Your task to perform on an android device: check storage Image 0: 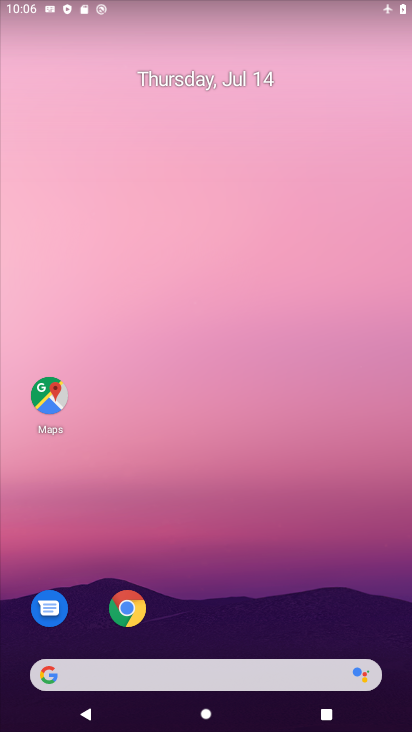
Step 0: drag from (192, 619) to (288, 27)
Your task to perform on an android device: check storage Image 1: 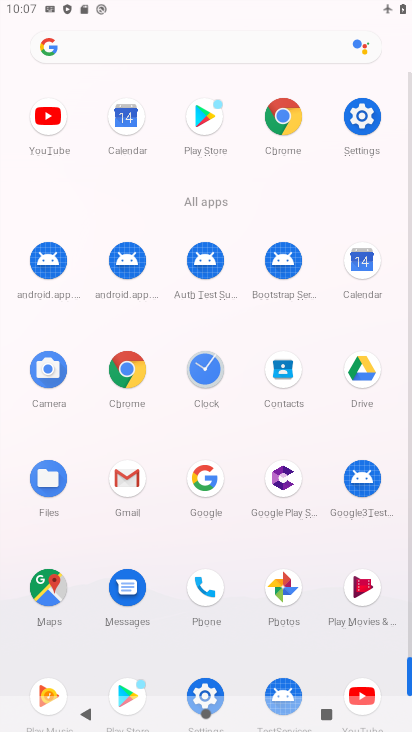
Step 1: click (367, 127)
Your task to perform on an android device: check storage Image 2: 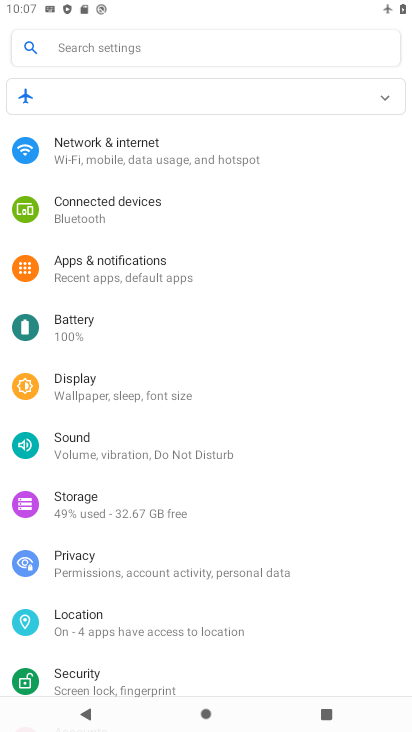
Step 2: click (109, 512)
Your task to perform on an android device: check storage Image 3: 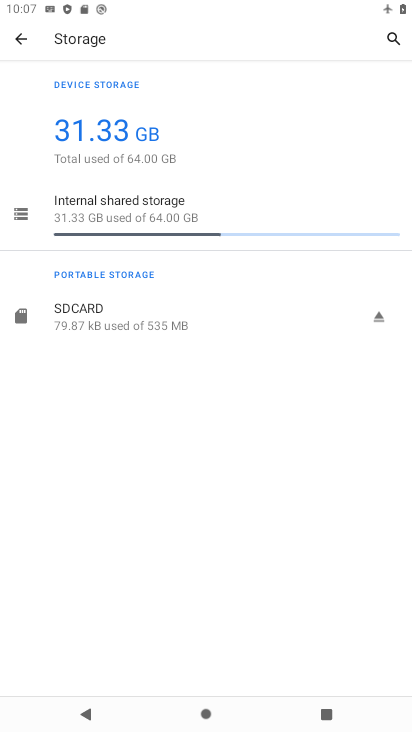
Step 3: click (140, 216)
Your task to perform on an android device: check storage Image 4: 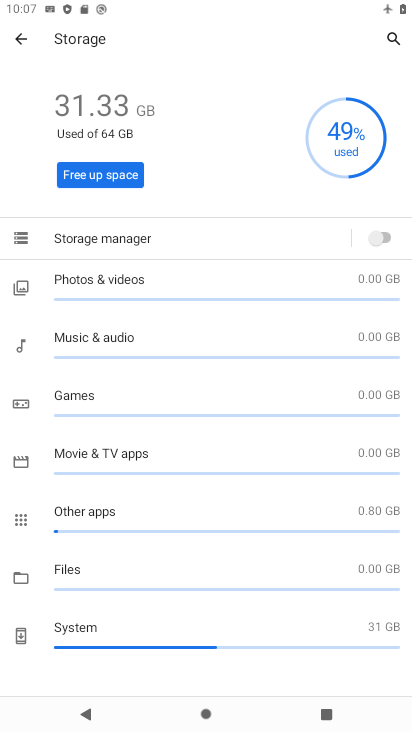
Step 4: task complete